Your task to perform on an android device: turn on bluetooth scan Image 0: 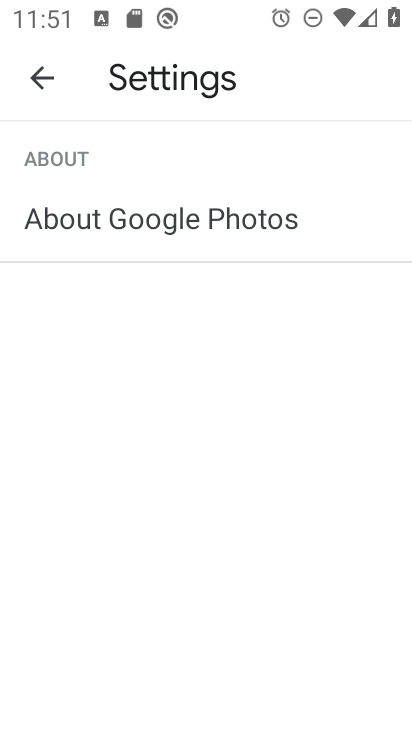
Step 0: press home button
Your task to perform on an android device: turn on bluetooth scan Image 1: 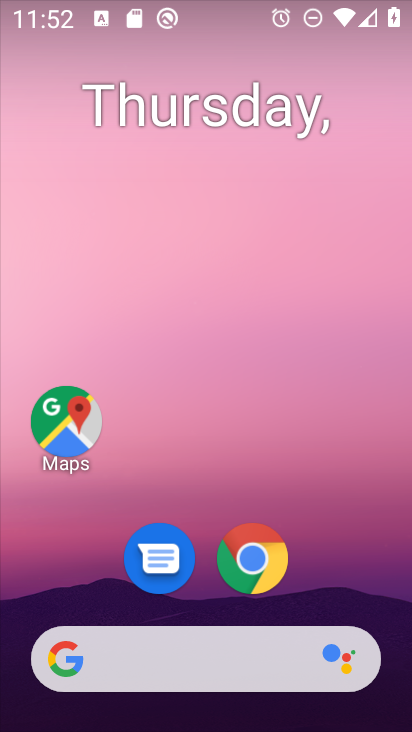
Step 1: drag from (385, 608) to (345, 163)
Your task to perform on an android device: turn on bluetooth scan Image 2: 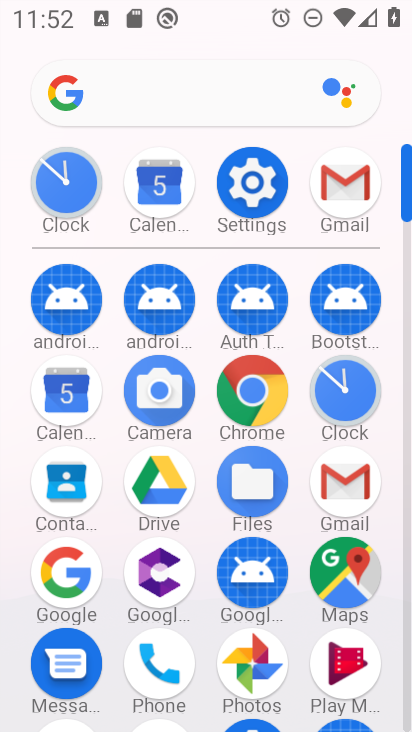
Step 2: click (408, 696)
Your task to perform on an android device: turn on bluetooth scan Image 3: 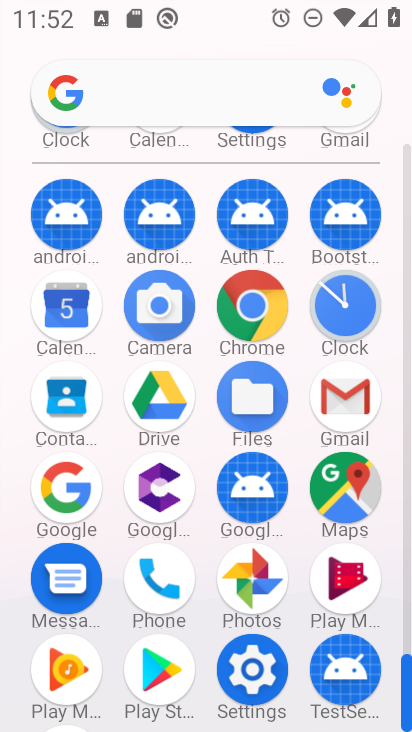
Step 3: click (252, 668)
Your task to perform on an android device: turn on bluetooth scan Image 4: 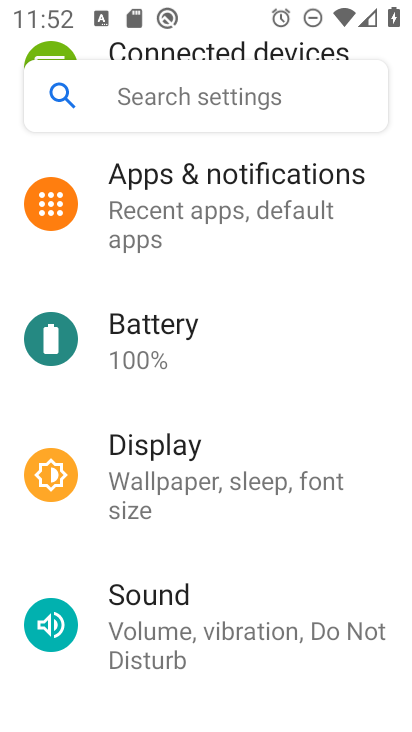
Step 4: drag from (354, 606) to (347, 213)
Your task to perform on an android device: turn on bluetooth scan Image 5: 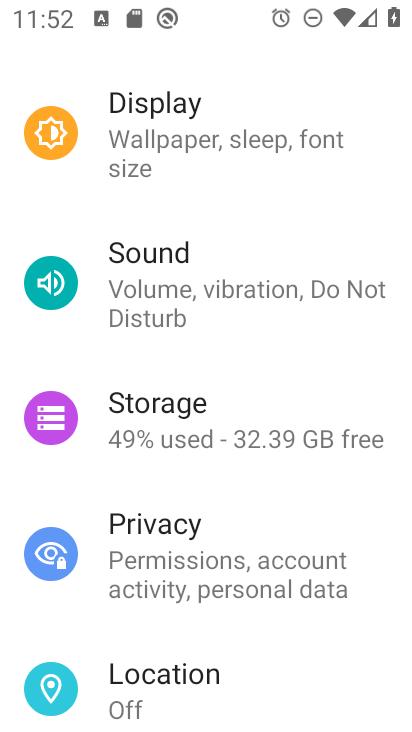
Step 5: drag from (324, 598) to (380, 202)
Your task to perform on an android device: turn on bluetooth scan Image 6: 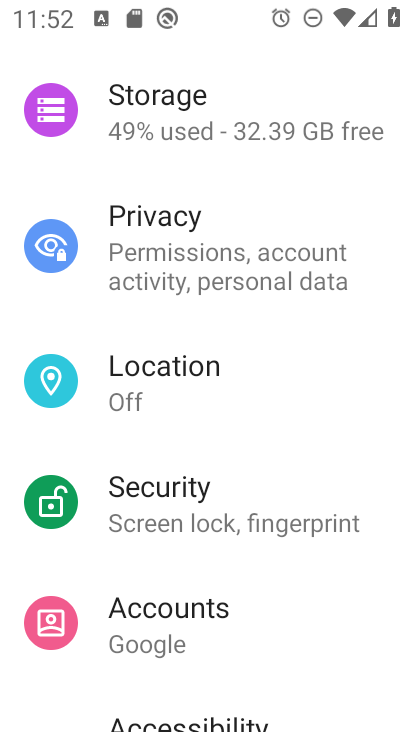
Step 6: click (127, 382)
Your task to perform on an android device: turn on bluetooth scan Image 7: 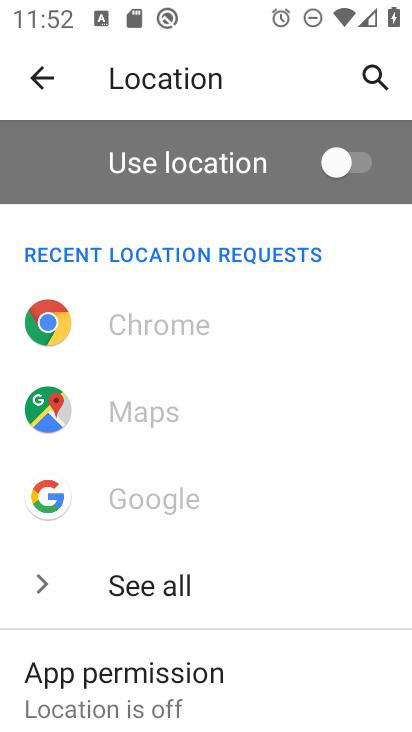
Step 7: drag from (340, 696) to (362, 250)
Your task to perform on an android device: turn on bluetooth scan Image 8: 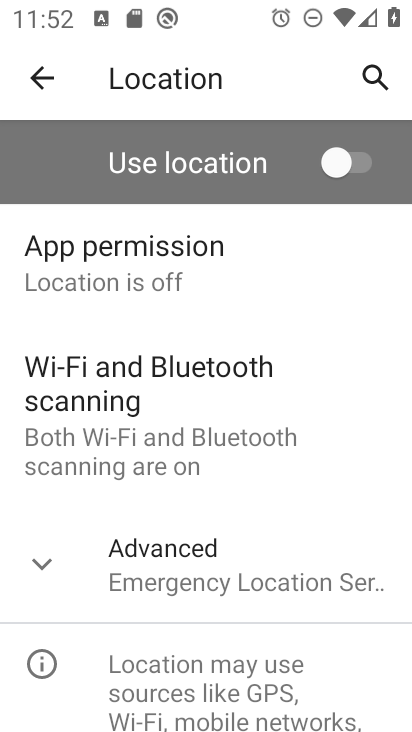
Step 8: click (109, 404)
Your task to perform on an android device: turn on bluetooth scan Image 9: 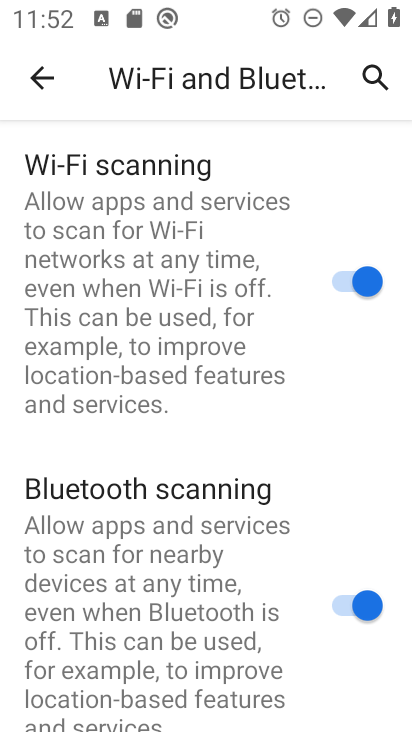
Step 9: task complete